Your task to perform on an android device: Toggle the flashlight Image 0: 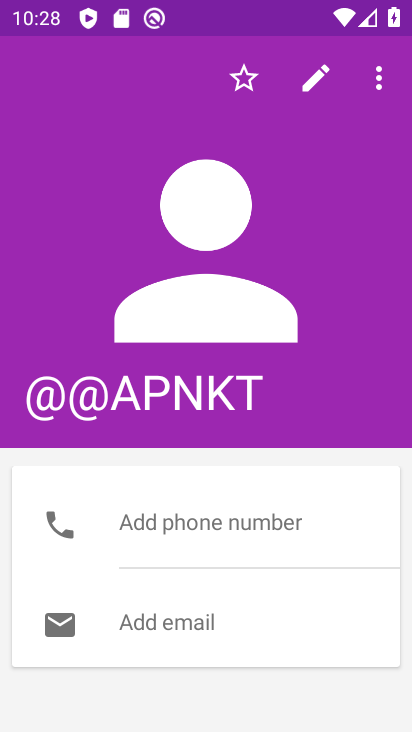
Step 0: press home button
Your task to perform on an android device: Toggle the flashlight Image 1: 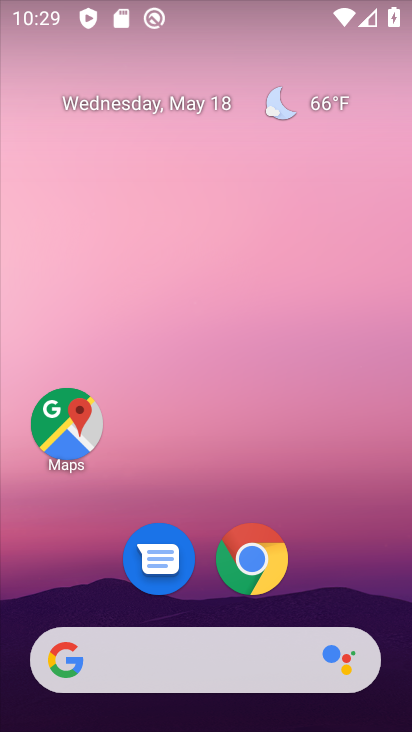
Step 1: drag from (217, 608) to (213, 143)
Your task to perform on an android device: Toggle the flashlight Image 2: 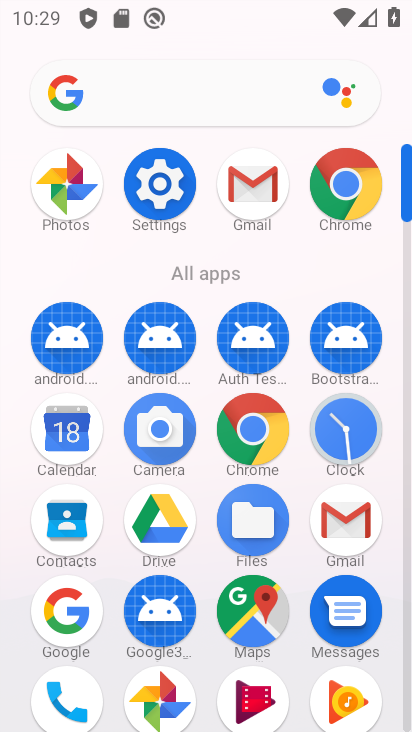
Step 2: click (175, 190)
Your task to perform on an android device: Toggle the flashlight Image 3: 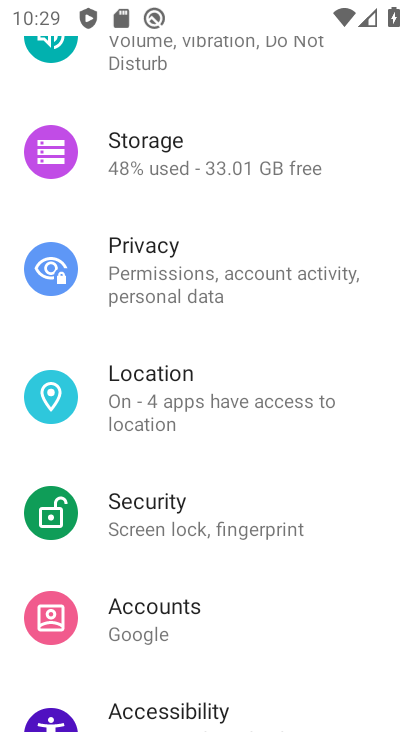
Step 3: drag from (196, 220) to (179, 590)
Your task to perform on an android device: Toggle the flashlight Image 4: 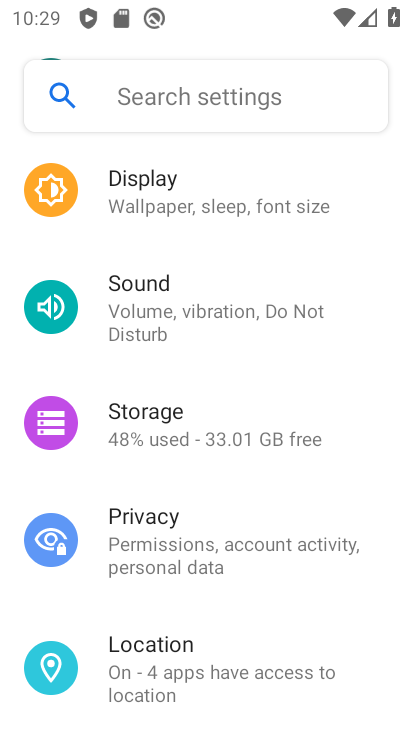
Step 4: click (186, 217)
Your task to perform on an android device: Toggle the flashlight Image 5: 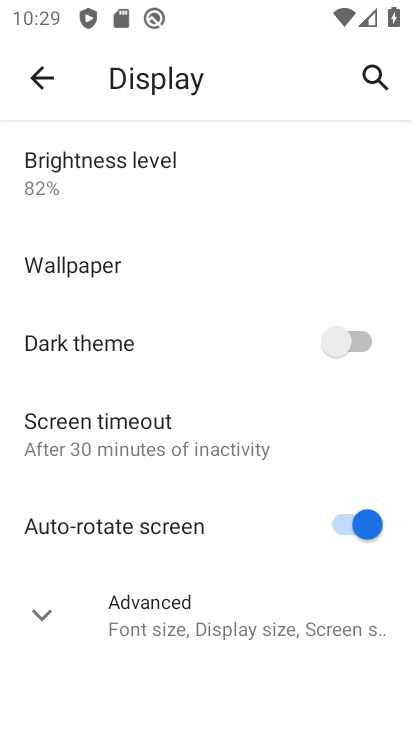
Step 5: task complete